Your task to perform on an android device: Open Google Maps and go to "Timeline" Image 0: 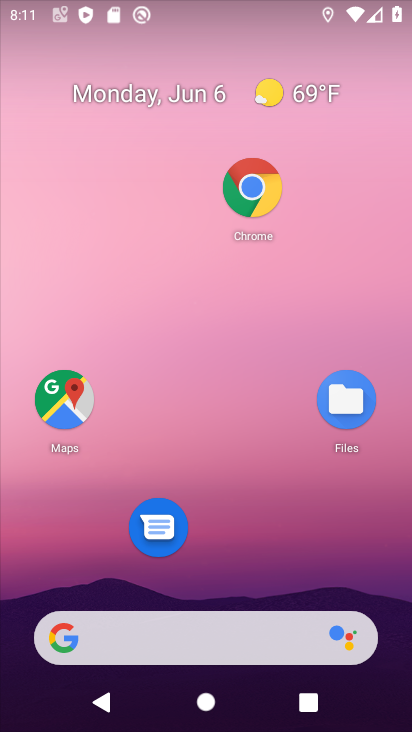
Step 0: drag from (218, 580) to (210, 108)
Your task to perform on an android device: Open Google Maps and go to "Timeline" Image 1: 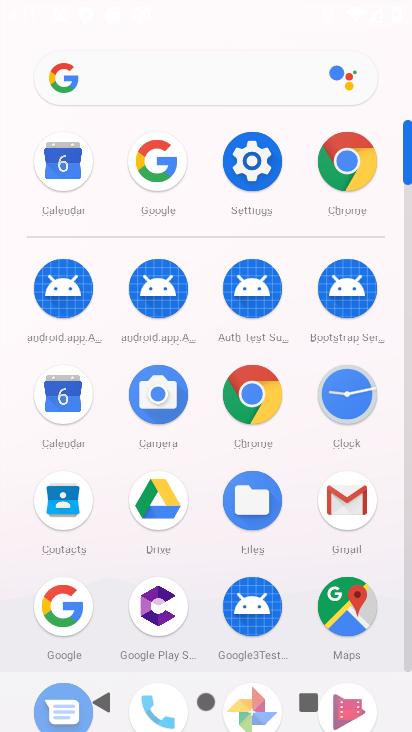
Step 1: click (353, 596)
Your task to perform on an android device: Open Google Maps and go to "Timeline" Image 2: 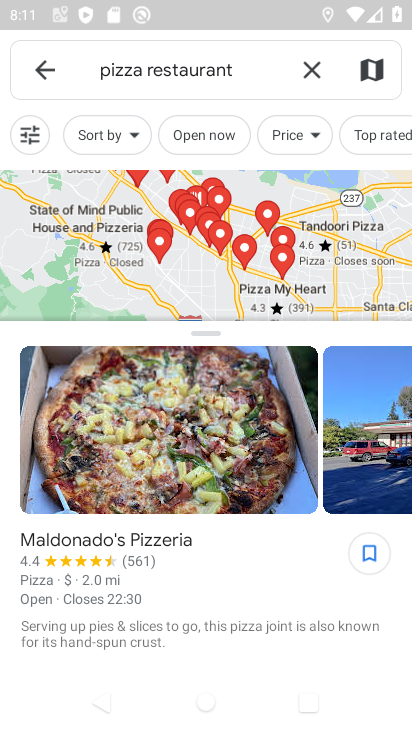
Step 2: click (316, 70)
Your task to perform on an android device: Open Google Maps and go to "Timeline" Image 3: 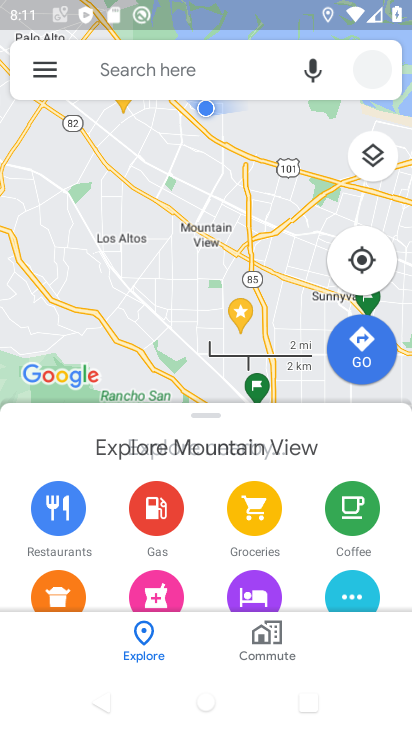
Step 3: click (38, 66)
Your task to perform on an android device: Open Google Maps and go to "Timeline" Image 4: 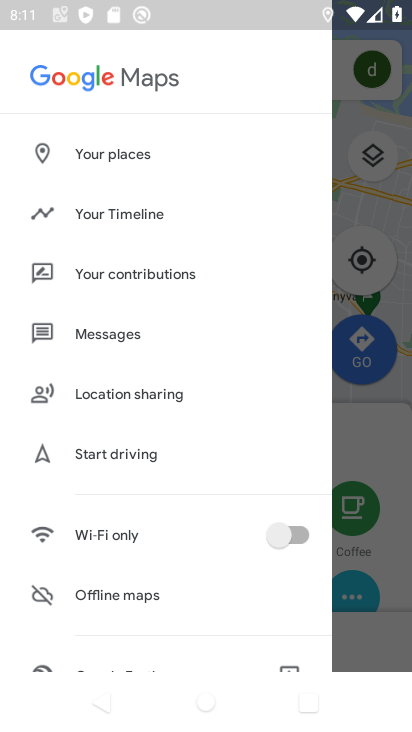
Step 4: click (113, 215)
Your task to perform on an android device: Open Google Maps and go to "Timeline" Image 5: 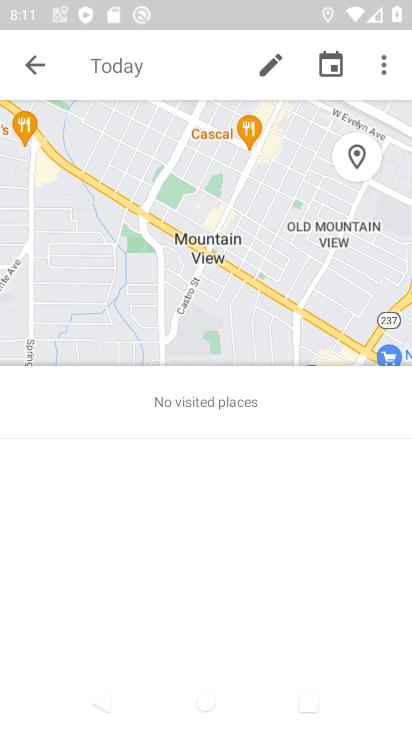
Step 5: task complete